Your task to perform on an android device: see tabs open on other devices in the chrome app Image 0: 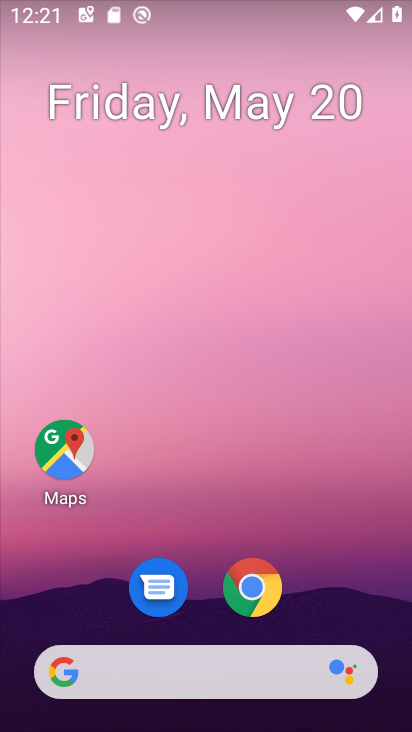
Step 0: drag from (357, 573) to (340, 197)
Your task to perform on an android device: see tabs open on other devices in the chrome app Image 1: 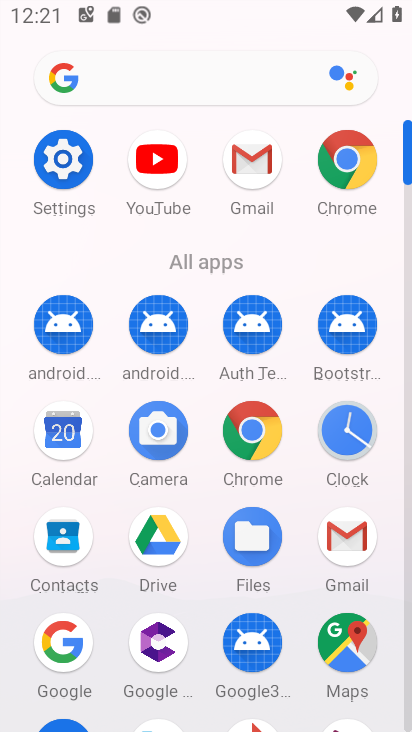
Step 1: click (265, 458)
Your task to perform on an android device: see tabs open on other devices in the chrome app Image 2: 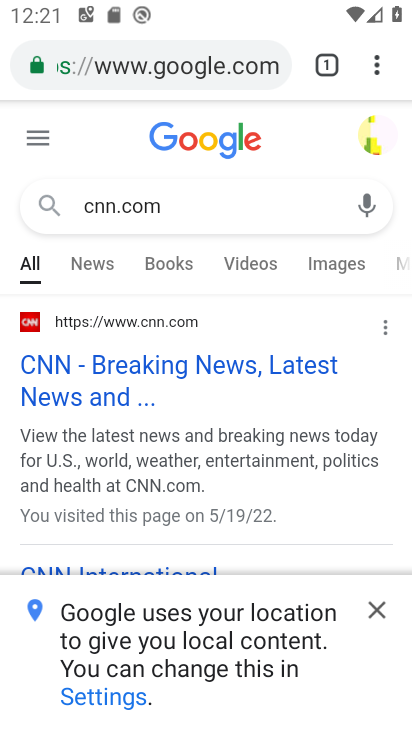
Step 2: click (377, 75)
Your task to perform on an android device: see tabs open on other devices in the chrome app Image 3: 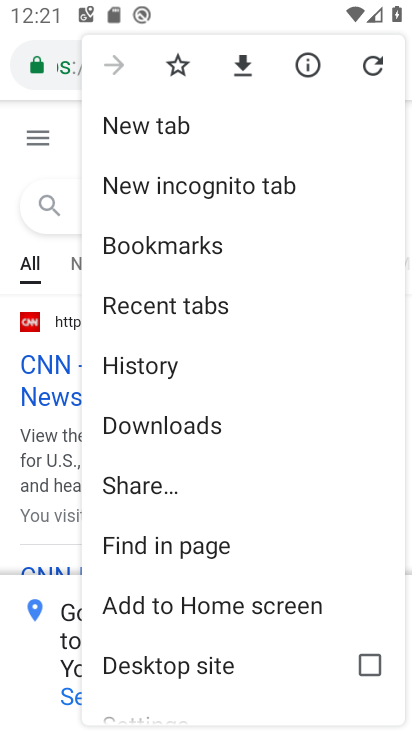
Step 3: drag from (338, 439) to (344, 359)
Your task to perform on an android device: see tabs open on other devices in the chrome app Image 4: 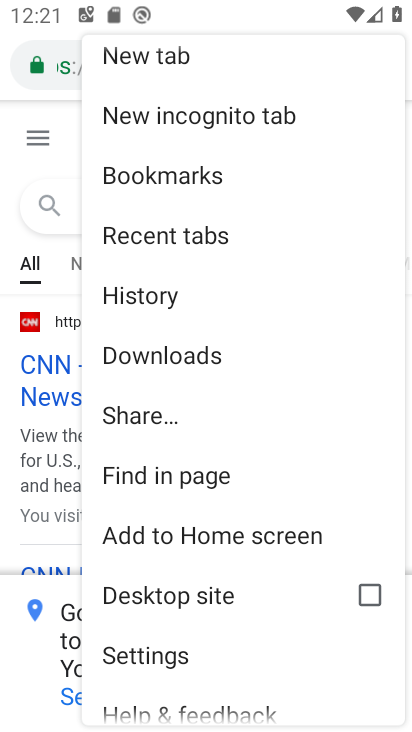
Step 4: drag from (354, 476) to (343, 393)
Your task to perform on an android device: see tabs open on other devices in the chrome app Image 5: 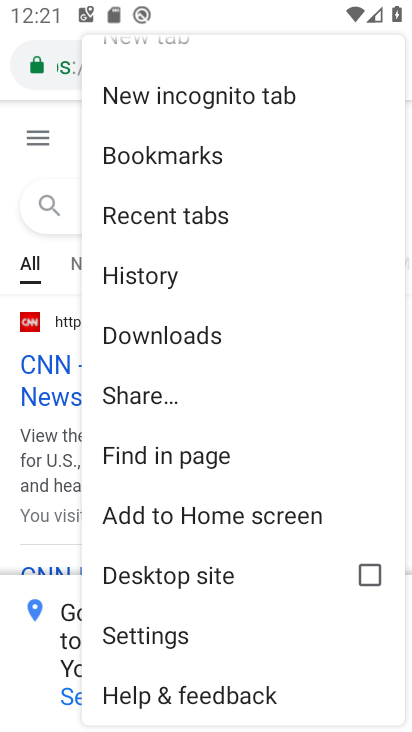
Step 5: click (190, 212)
Your task to perform on an android device: see tabs open on other devices in the chrome app Image 6: 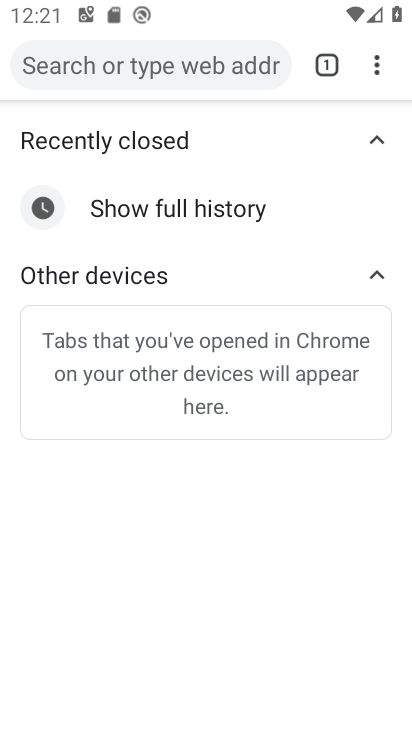
Step 6: click (321, 76)
Your task to perform on an android device: see tabs open on other devices in the chrome app Image 7: 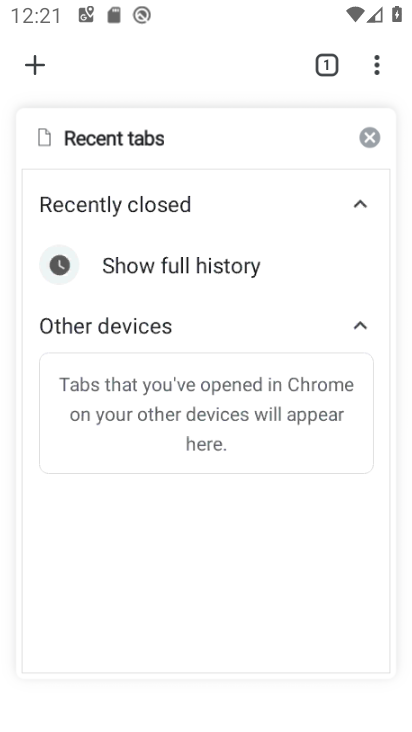
Step 7: task complete